Your task to perform on an android device: Open battery settings Image 0: 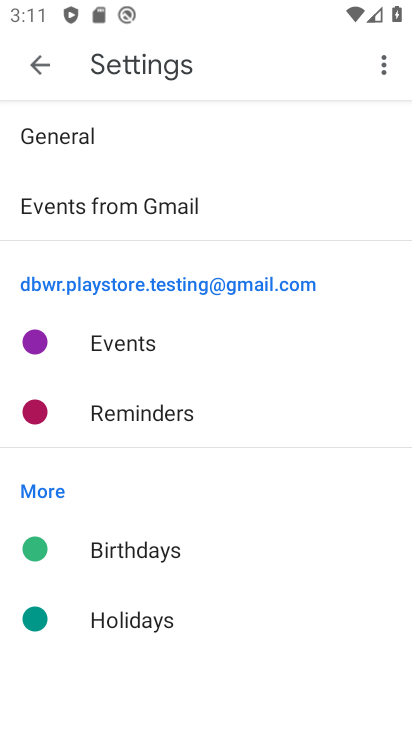
Step 0: press back button
Your task to perform on an android device: Open battery settings Image 1: 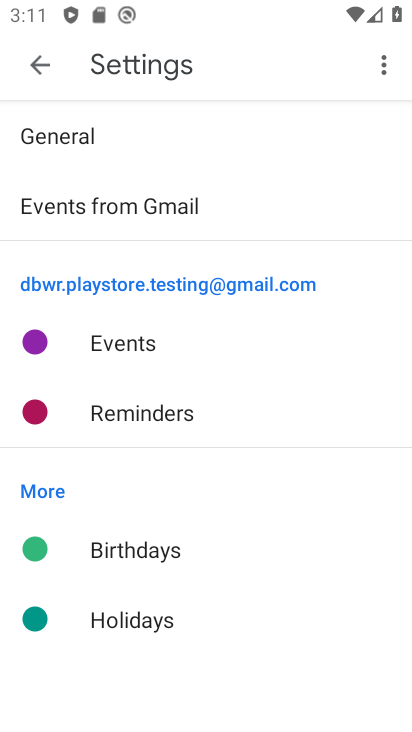
Step 1: press home button
Your task to perform on an android device: Open battery settings Image 2: 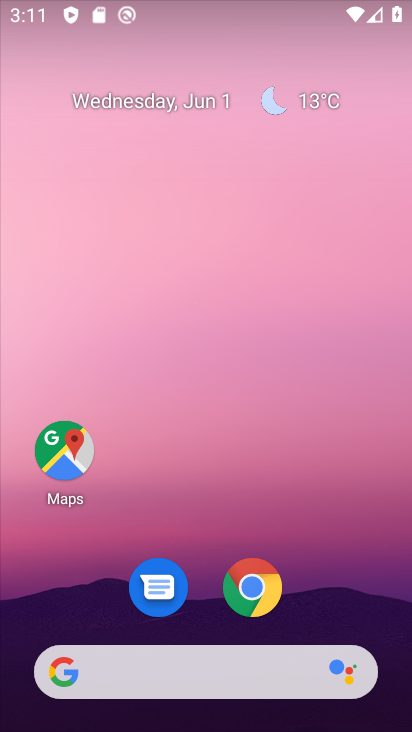
Step 2: drag from (351, 601) to (202, 1)
Your task to perform on an android device: Open battery settings Image 3: 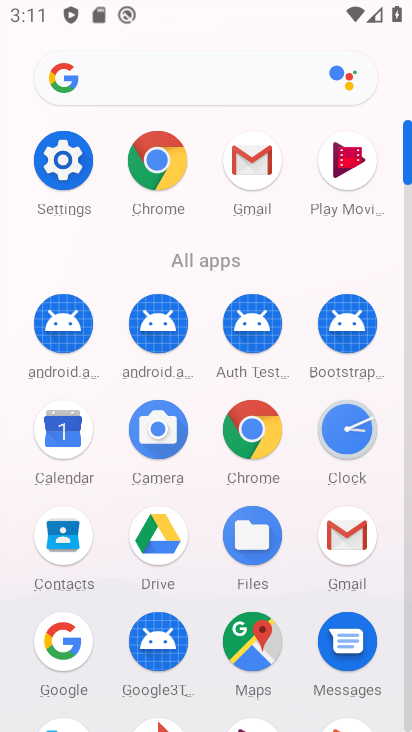
Step 3: click (61, 156)
Your task to perform on an android device: Open battery settings Image 4: 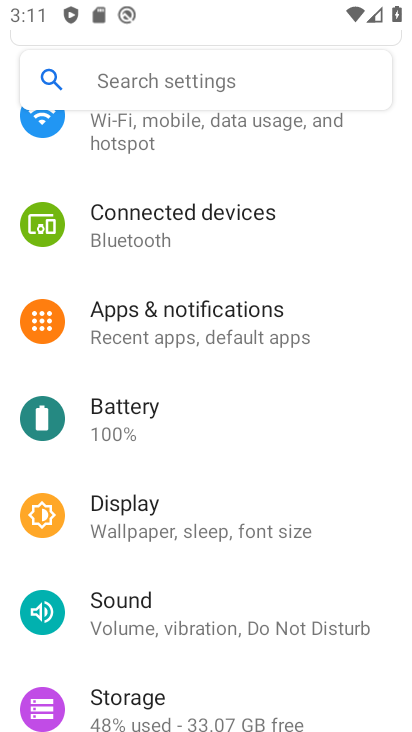
Step 4: click (143, 414)
Your task to perform on an android device: Open battery settings Image 5: 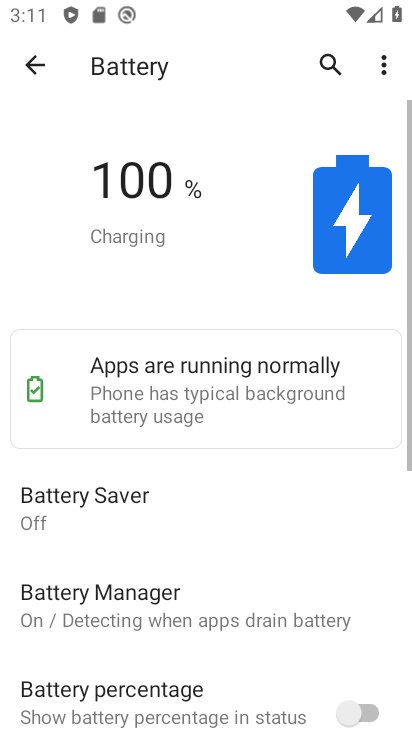
Step 5: task complete